Your task to perform on an android device: Check the weather Image 0: 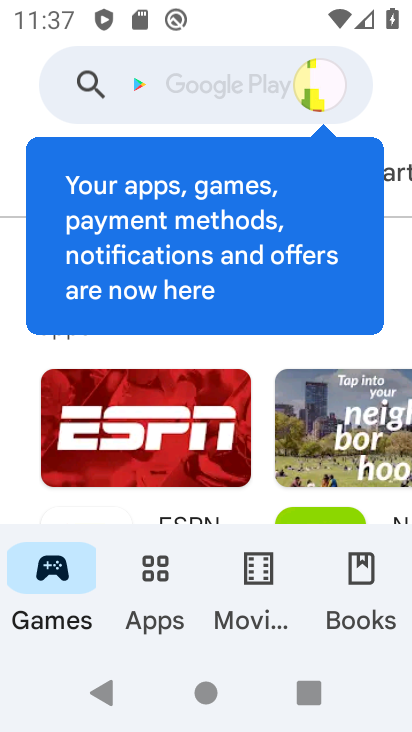
Step 0: press back button
Your task to perform on an android device: Check the weather Image 1: 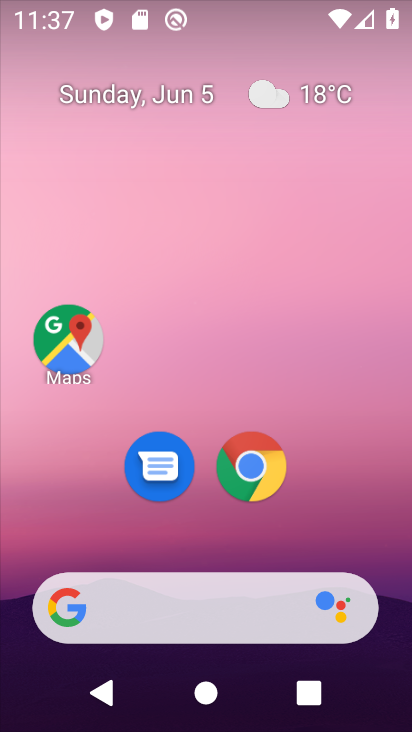
Step 1: drag from (318, 546) to (258, 46)
Your task to perform on an android device: Check the weather Image 2: 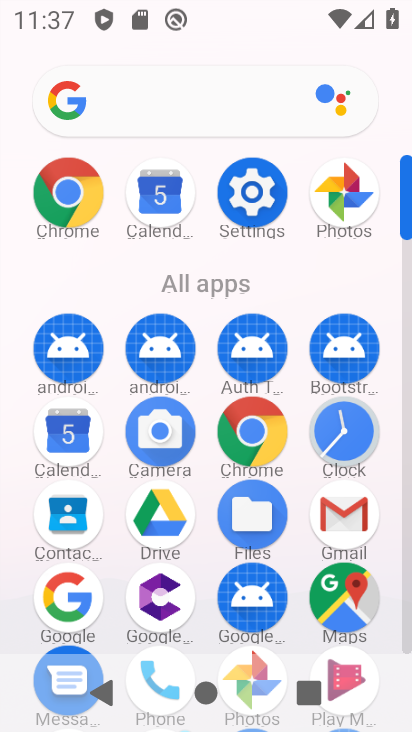
Step 2: click (253, 427)
Your task to perform on an android device: Check the weather Image 3: 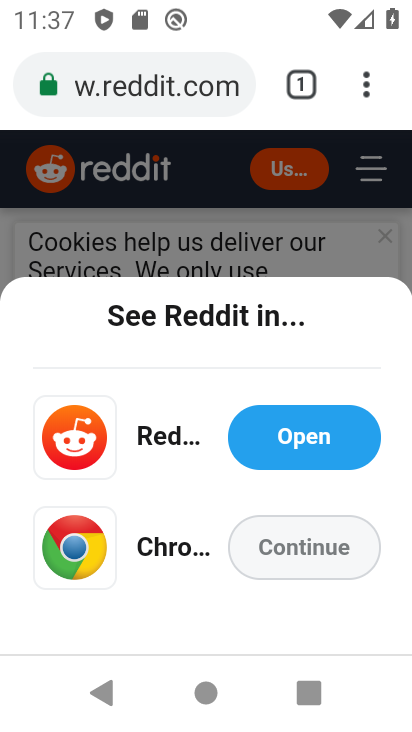
Step 3: click (169, 78)
Your task to perform on an android device: Check the weather Image 4: 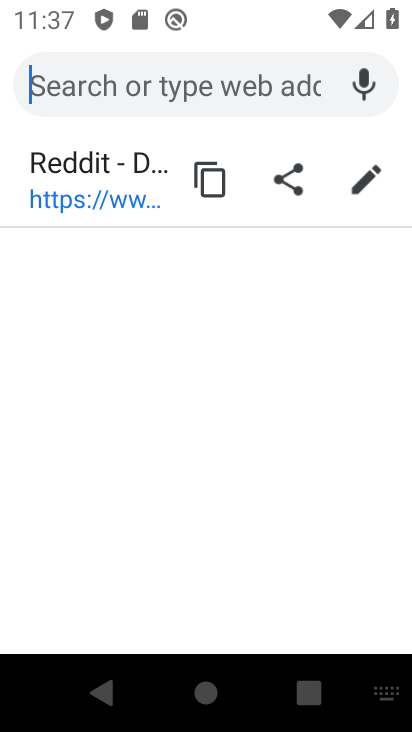
Step 4: type "Check the weather"
Your task to perform on an android device: Check the weather Image 5: 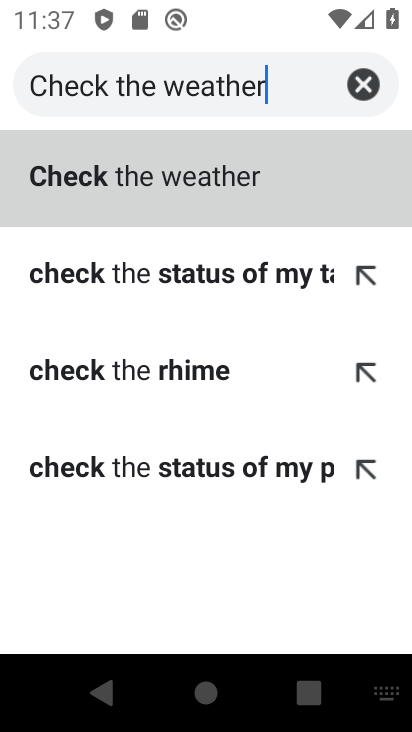
Step 5: type ""
Your task to perform on an android device: Check the weather Image 6: 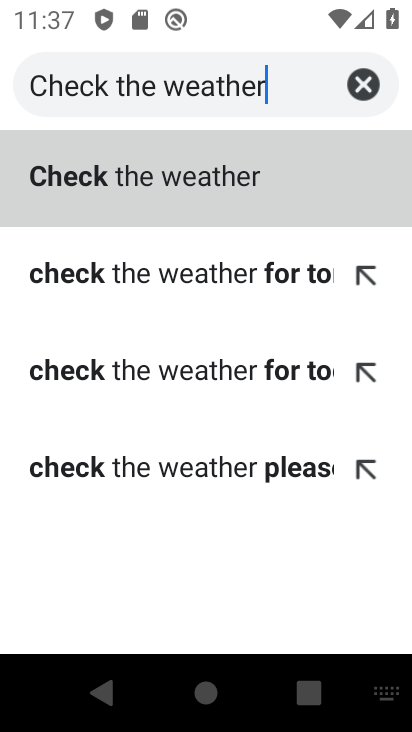
Step 6: click (122, 177)
Your task to perform on an android device: Check the weather Image 7: 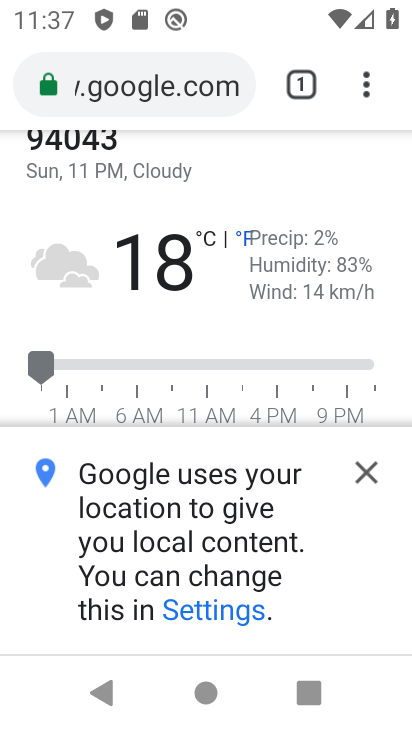
Step 7: click (367, 480)
Your task to perform on an android device: Check the weather Image 8: 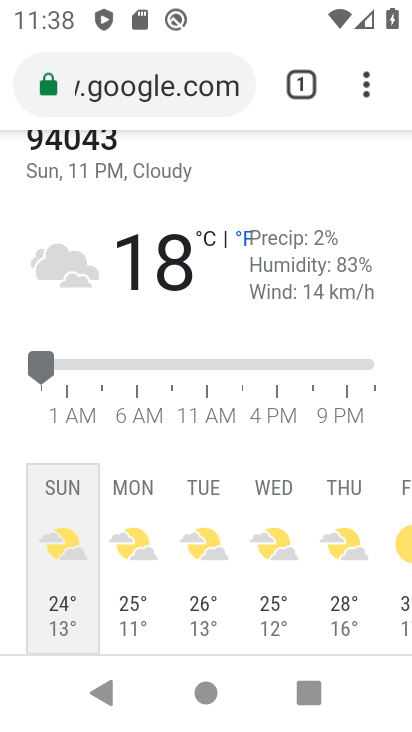
Step 8: task complete